Your task to perform on an android device: delete the emails in spam in the gmail app Image 0: 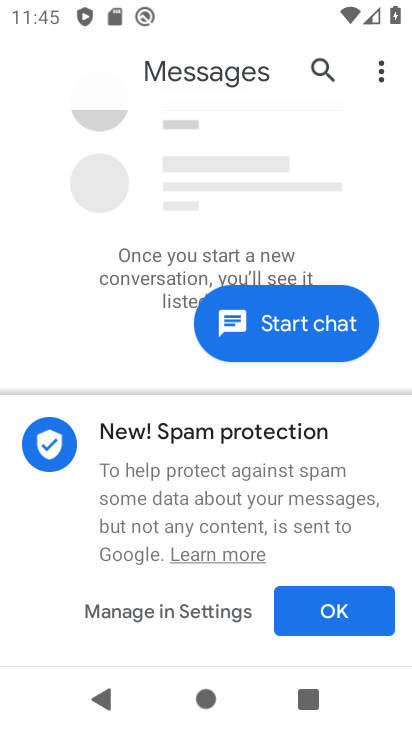
Step 0: press home button
Your task to perform on an android device: delete the emails in spam in the gmail app Image 1: 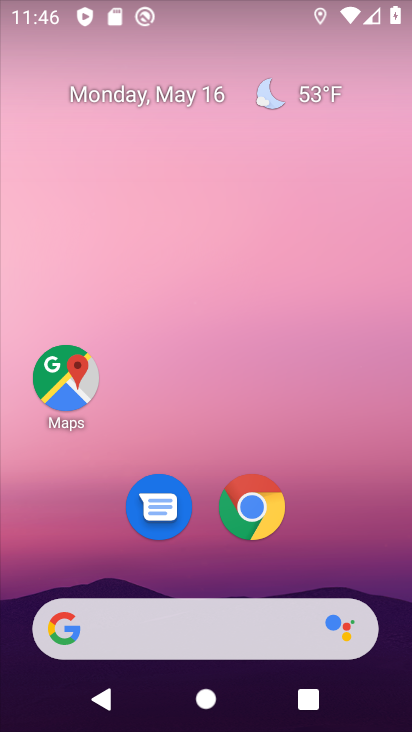
Step 1: drag from (358, 570) to (357, 300)
Your task to perform on an android device: delete the emails in spam in the gmail app Image 2: 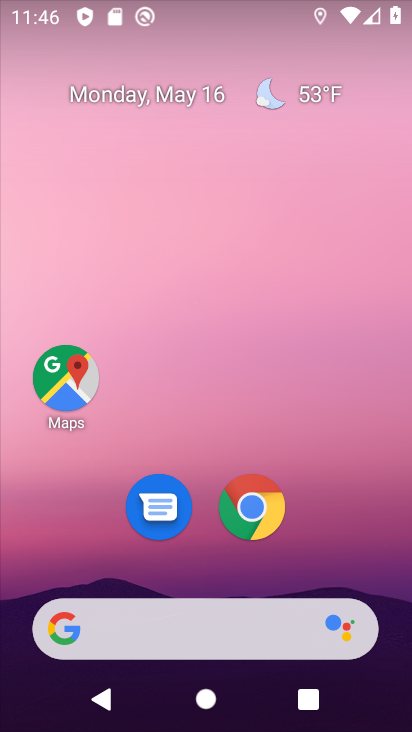
Step 2: drag from (219, 610) to (225, 428)
Your task to perform on an android device: delete the emails in spam in the gmail app Image 3: 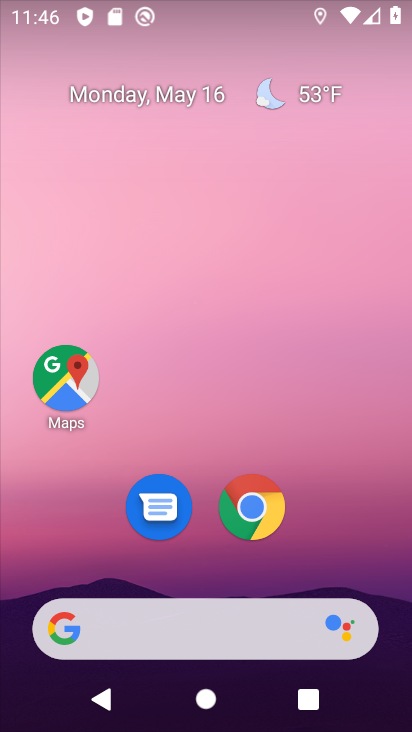
Step 3: drag from (241, 541) to (271, 133)
Your task to perform on an android device: delete the emails in spam in the gmail app Image 4: 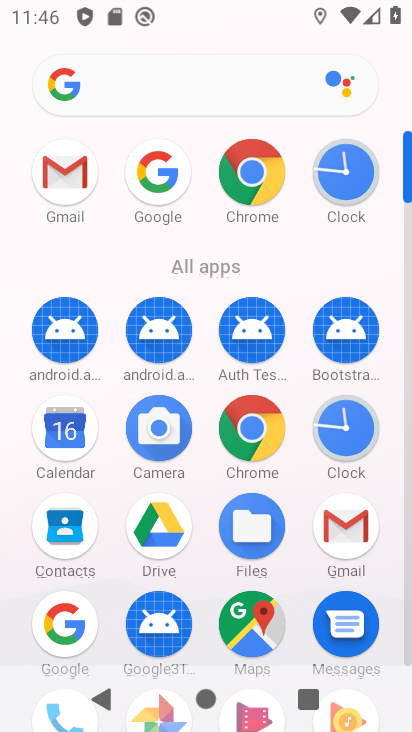
Step 4: click (334, 535)
Your task to perform on an android device: delete the emails in spam in the gmail app Image 5: 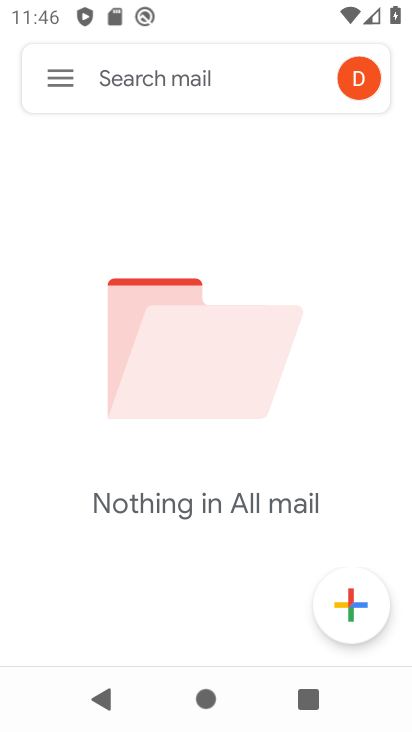
Step 5: click (60, 93)
Your task to perform on an android device: delete the emails in spam in the gmail app Image 6: 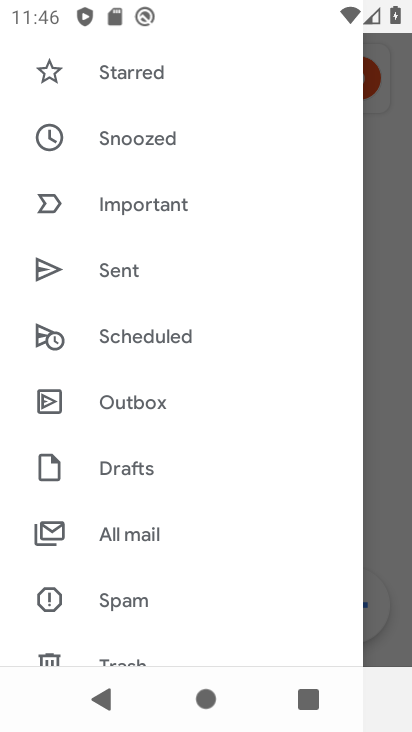
Step 6: click (150, 592)
Your task to perform on an android device: delete the emails in spam in the gmail app Image 7: 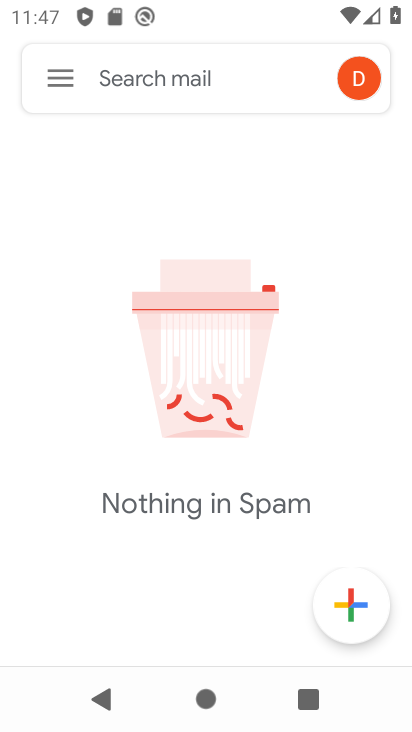
Step 7: task complete